Your task to perform on an android device: Open calendar and show me the third week of next month Image 0: 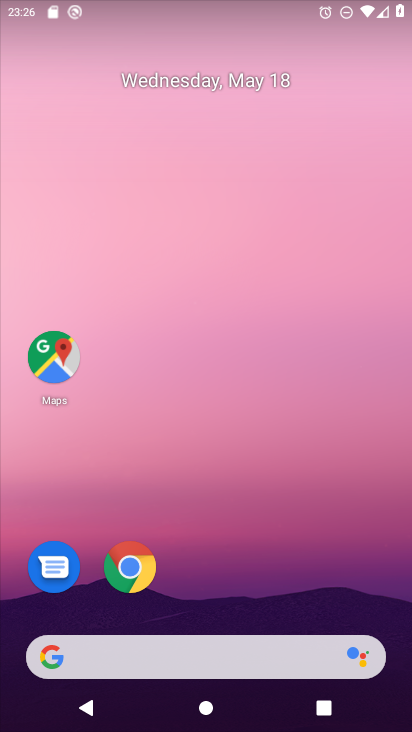
Step 0: drag from (266, 674) to (213, 142)
Your task to perform on an android device: Open calendar and show me the third week of next month Image 1: 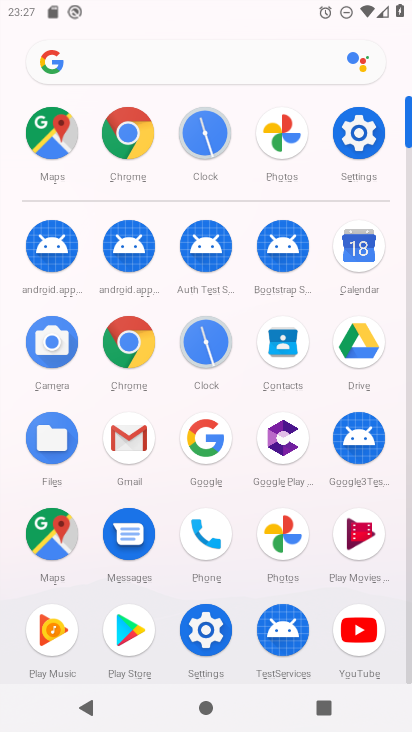
Step 1: click (365, 262)
Your task to perform on an android device: Open calendar and show me the third week of next month Image 2: 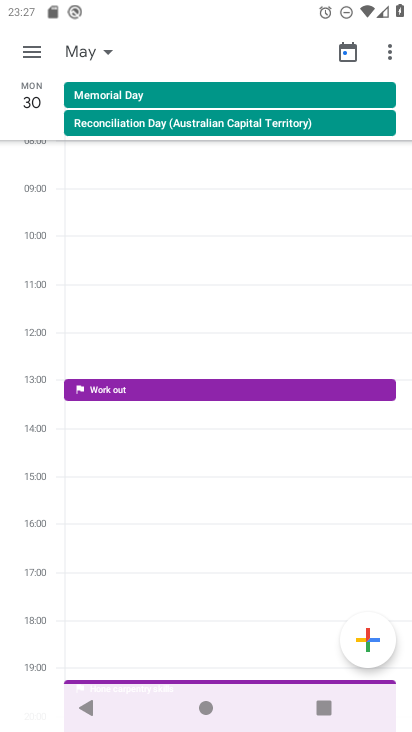
Step 2: click (31, 58)
Your task to perform on an android device: Open calendar and show me the third week of next month Image 3: 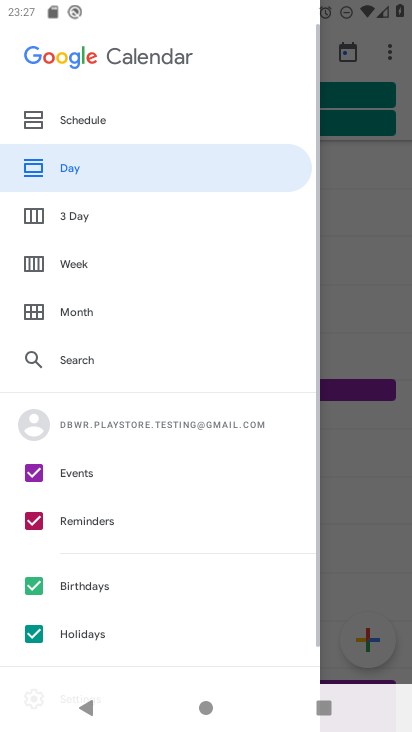
Step 3: click (88, 312)
Your task to perform on an android device: Open calendar and show me the third week of next month Image 4: 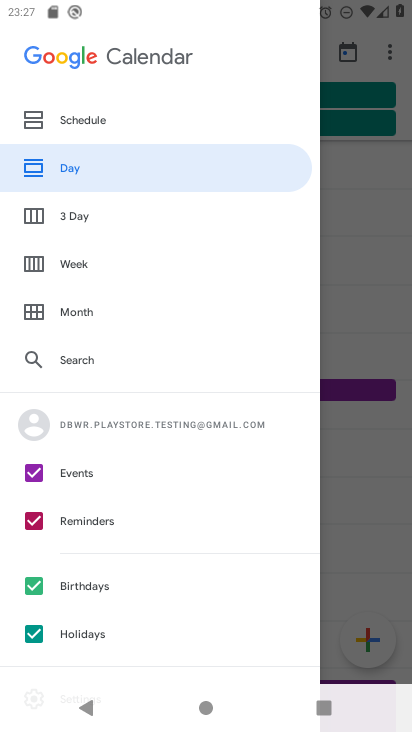
Step 4: click (102, 306)
Your task to perform on an android device: Open calendar and show me the third week of next month Image 5: 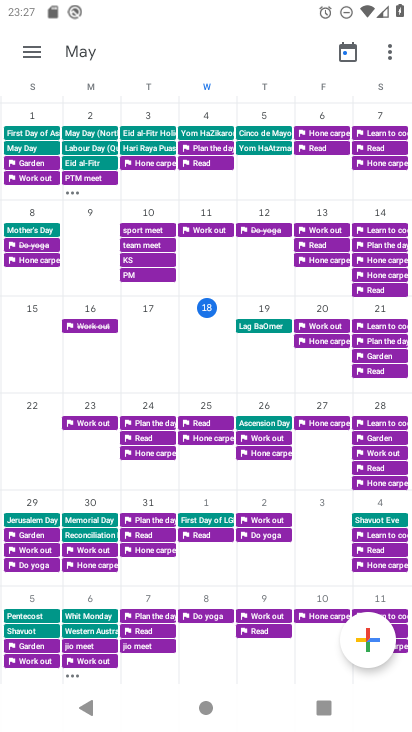
Step 5: drag from (393, 429) to (6, 379)
Your task to perform on an android device: Open calendar and show me the third week of next month Image 6: 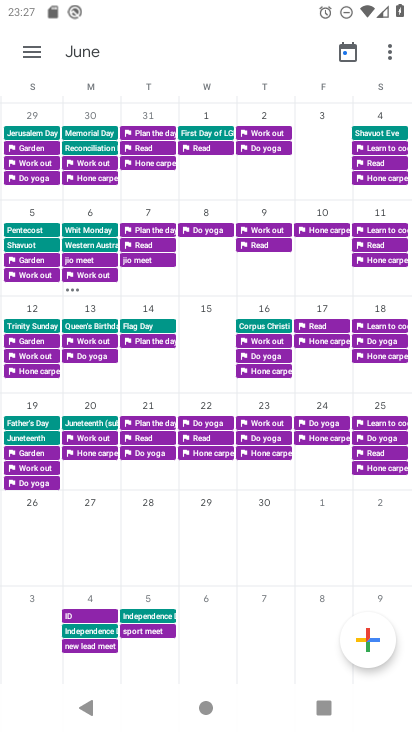
Step 6: click (93, 399)
Your task to perform on an android device: Open calendar and show me the third week of next month Image 7: 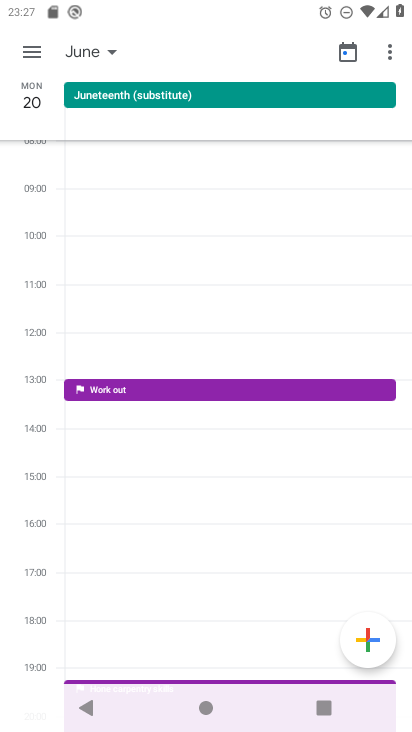
Step 7: task complete